Your task to perform on an android device: toggle priority inbox in the gmail app Image 0: 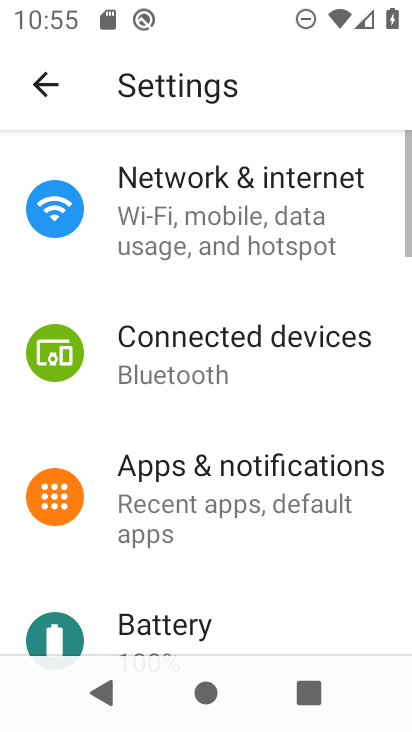
Step 0: press home button
Your task to perform on an android device: toggle priority inbox in the gmail app Image 1: 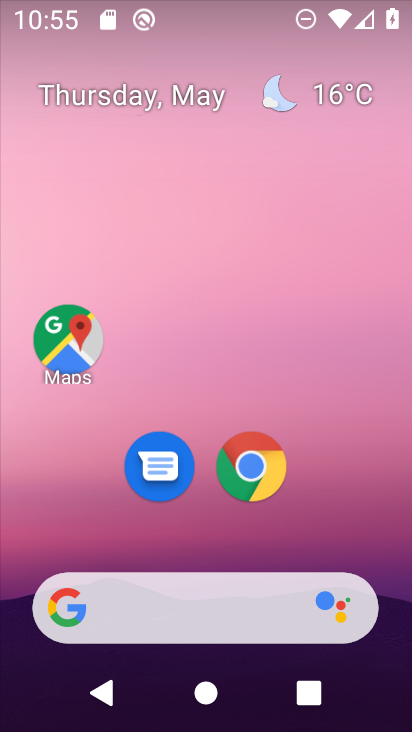
Step 1: drag from (353, 527) to (332, 230)
Your task to perform on an android device: toggle priority inbox in the gmail app Image 2: 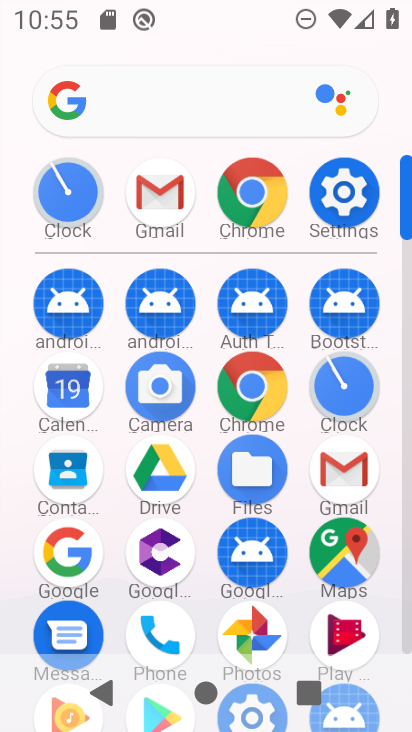
Step 2: click (330, 467)
Your task to perform on an android device: toggle priority inbox in the gmail app Image 3: 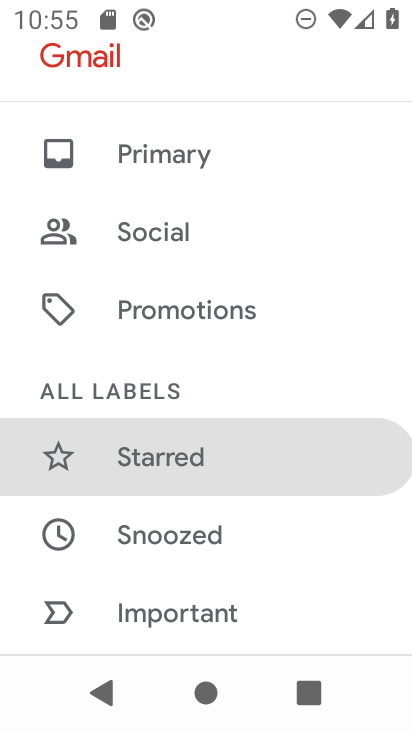
Step 3: drag from (226, 546) to (235, 159)
Your task to perform on an android device: toggle priority inbox in the gmail app Image 4: 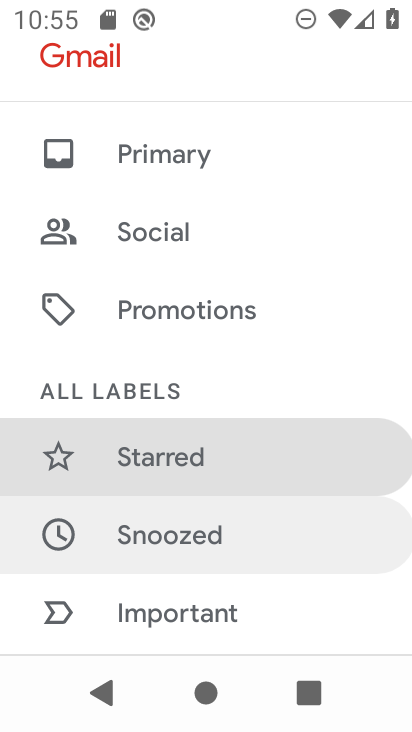
Step 4: drag from (202, 460) to (232, 272)
Your task to perform on an android device: toggle priority inbox in the gmail app Image 5: 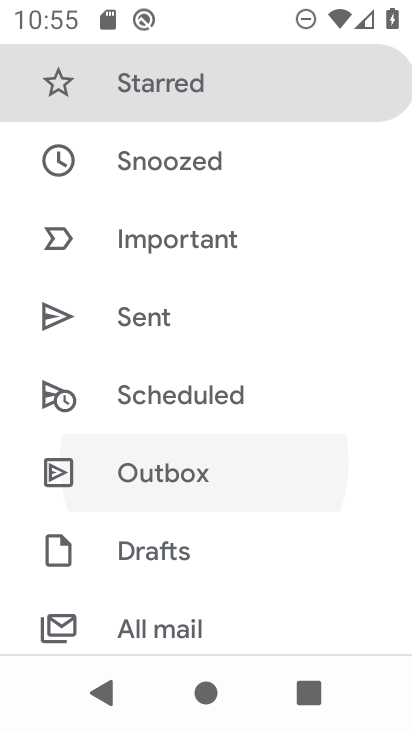
Step 5: drag from (201, 482) to (260, 194)
Your task to perform on an android device: toggle priority inbox in the gmail app Image 6: 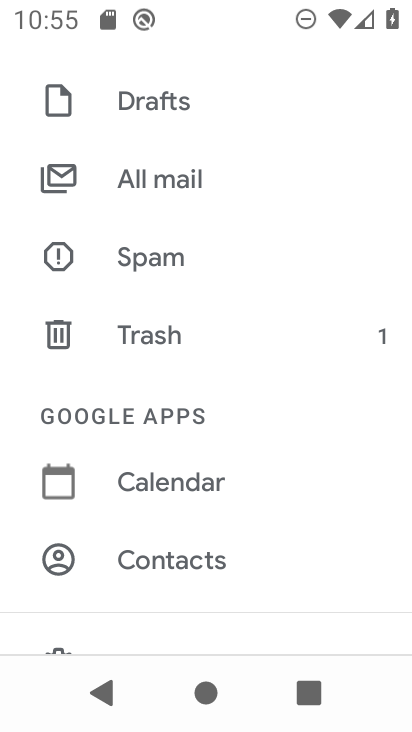
Step 6: drag from (198, 512) to (249, 261)
Your task to perform on an android device: toggle priority inbox in the gmail app Image 7: 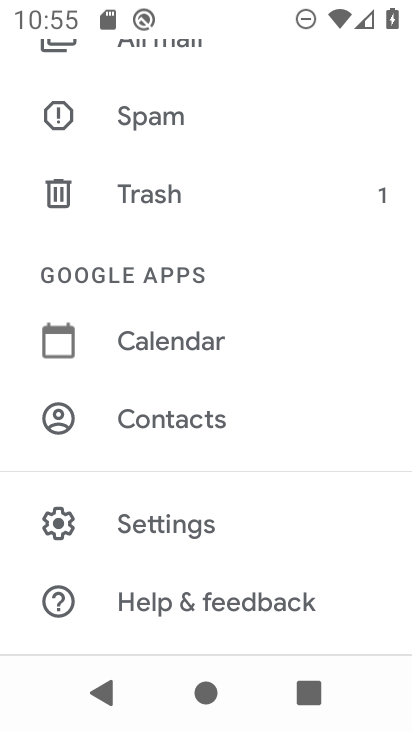
Step 7: drag from (211, 496) to (265, 225)
Your task to perform on an android device: toggle priority inbox in the gmail app Image 8: 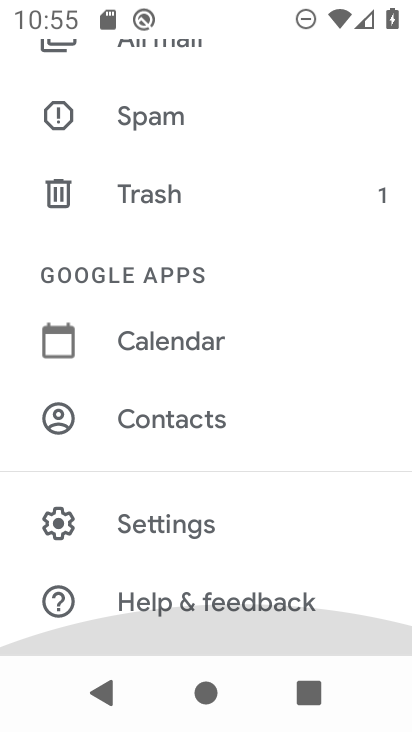
Step 8: drag from (195, 556) to (260, 302)
Your task to perform on an android device: toggle priority inbox in the gmail app Image 9: 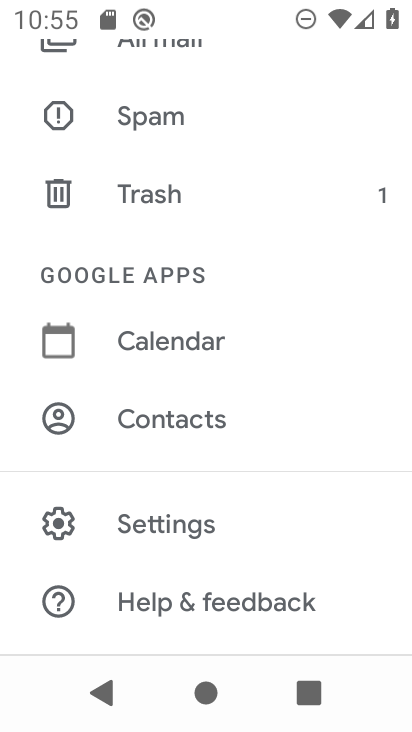
Step 9: click (195, 539)
Your task to perform on an android device: toggle priority inbox in the gmail app Image 10: 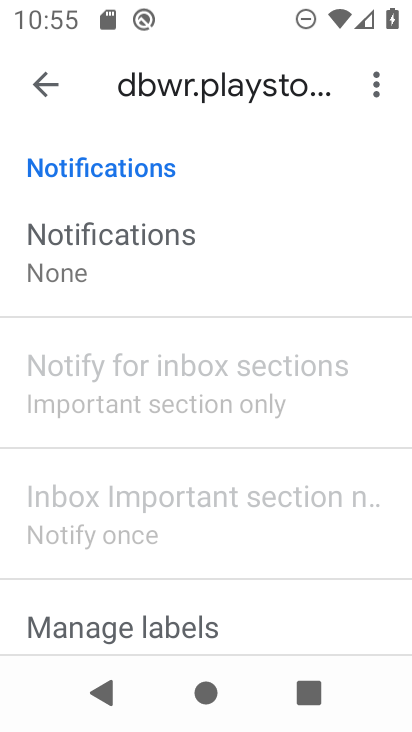
Step 10: drag from (238, 554) to (225, 153)
Your task to perform on an android device: toggle priority inbox in the gmail app Image 11: 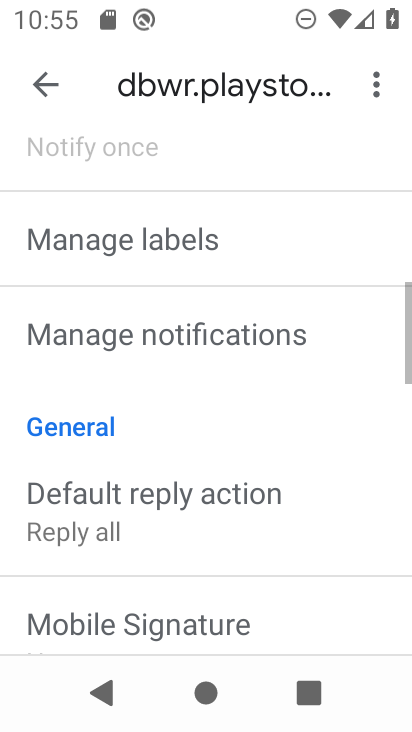
Step 11: drag from (231, 512) to (268, 272)
Your task to perform on an android device: toggle priority inbox in the gmail app Image 12: 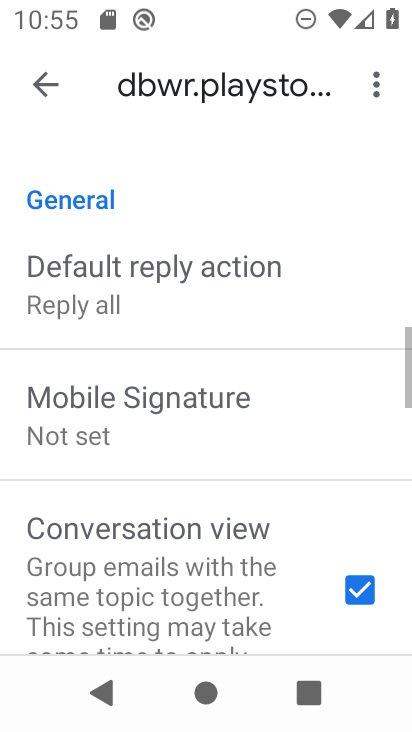
Step 12: drag from (208, 423) to (239, 94)
Your task to perform on an android device: toggle priority inbox in the gmail app Image 13: 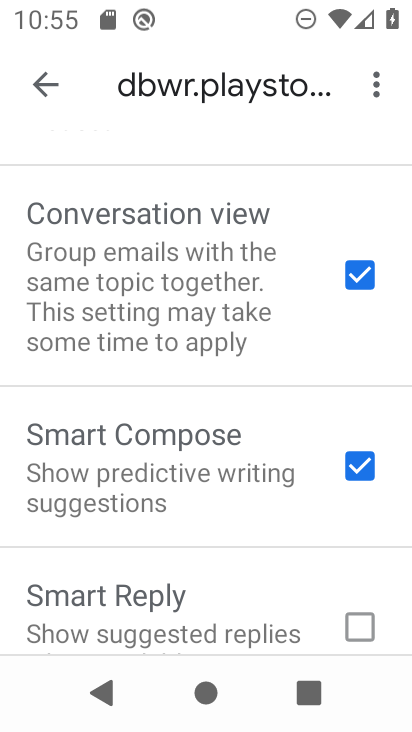
Step 13: drag from (112, 251) to (129, 582)
Your task to perform on an android device: toggle priority inbox in the gmail app Image 14: 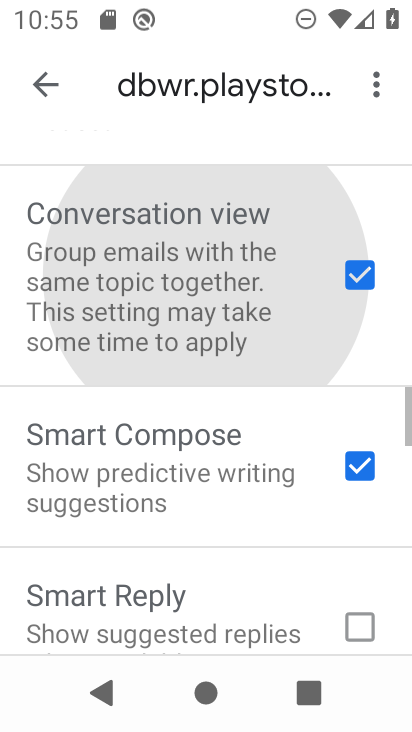
Step 14: drag from (156, 271) to (174, 586)
Your task to perform on an android device: toggle priority inbox in the gmail app Image 15: 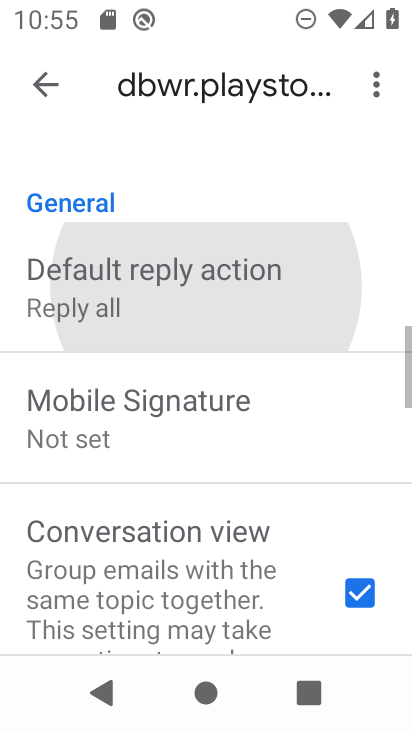
Step 15: drag from (179, 260) to (201, 526)
Your task to perform on an android device: toggle priority inbox in the gmail app Image 16: 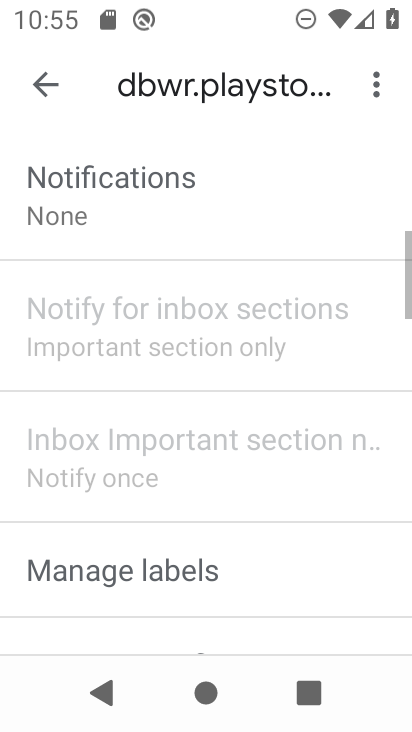
Step 16: drag from (152, 299) to (157, 479)
Your task to perform on an android device: toggle priority inbox in the gmail app Image 17: 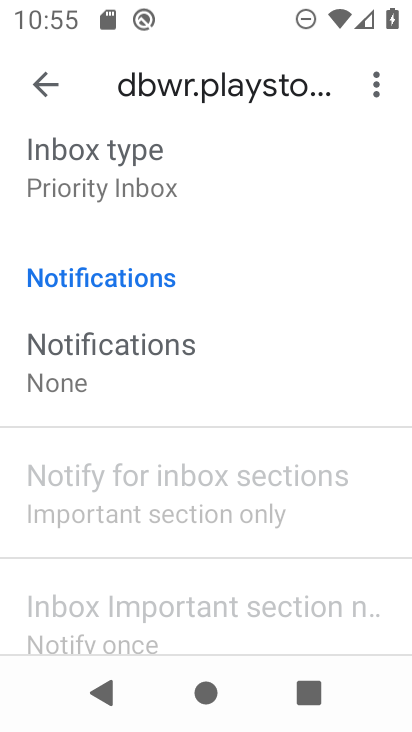
Step 17: click (108, 182)
Your task to perform on an android device: toggle priority inbox in the gmail app Image 18: 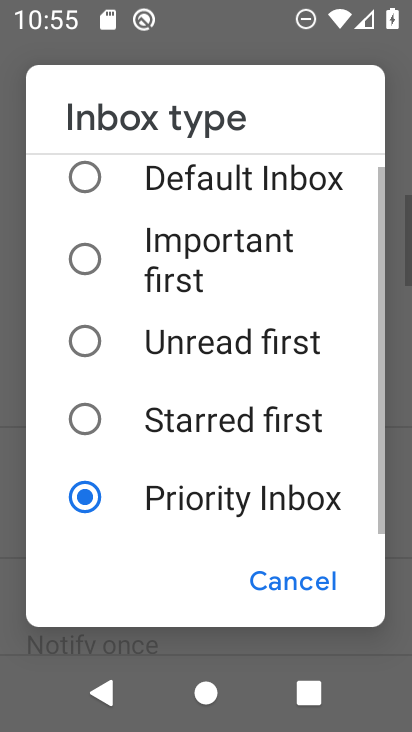
Step 18: click (144, 185)
Your task to perform on an android device: toggle priority inbox in the gmail app Image 19: 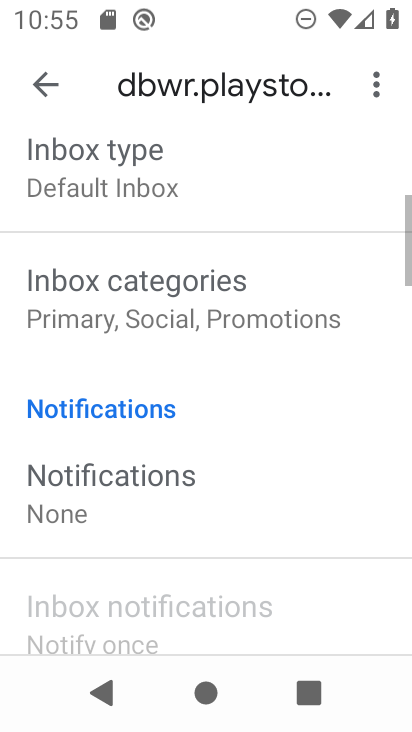
Step 19: task complete